Your task to perform on an android device: Open accessibility settings Image 0: 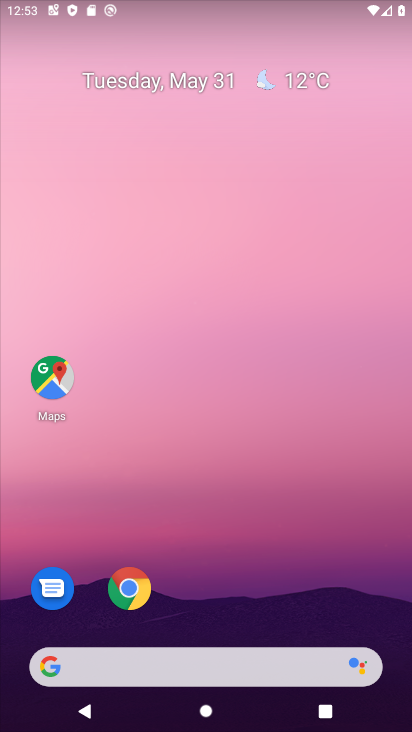
Step 0: drag from (200, 604) to (177, 20)
Your task to perform on an android device: Open accessibility settings Image 1: 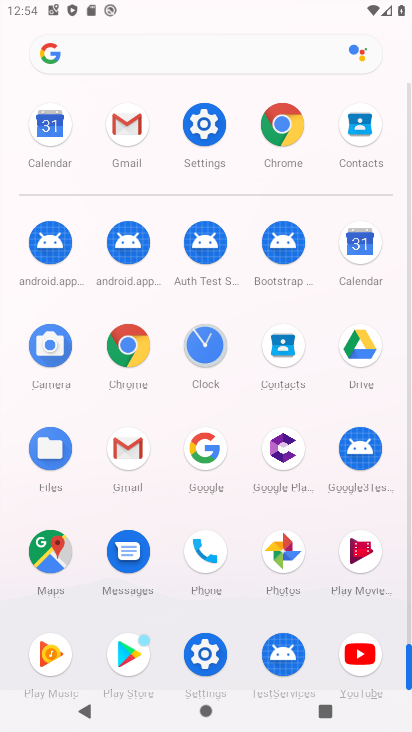
Step 1: click (212, 133)
Your task to perform on an android device: Open accessibility settings Image 2: 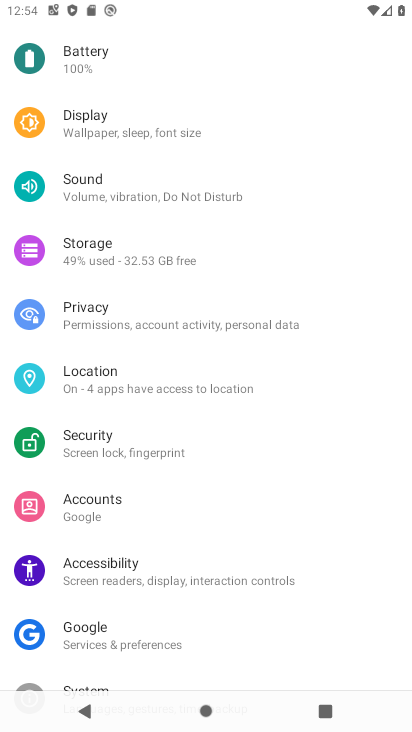
Step 2: drag from (162, 140) to (202, 560)
Your task to perform on an android device: Open accessibility settings Image 3: 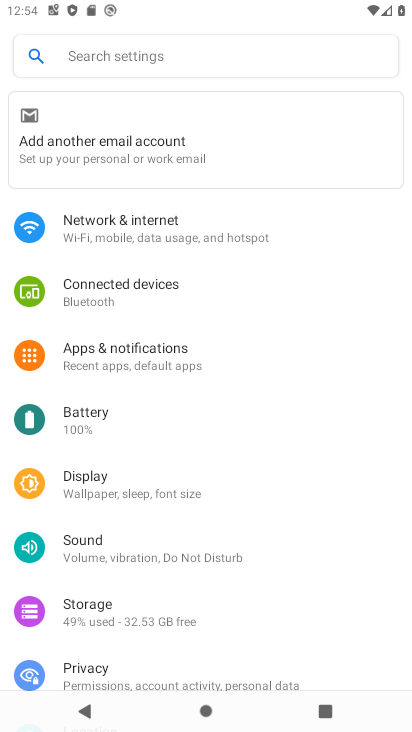
Step 3: drag from (205, 616) to (213, 230)
Your task to perform on an android device: Open accessibility settings Image 4: 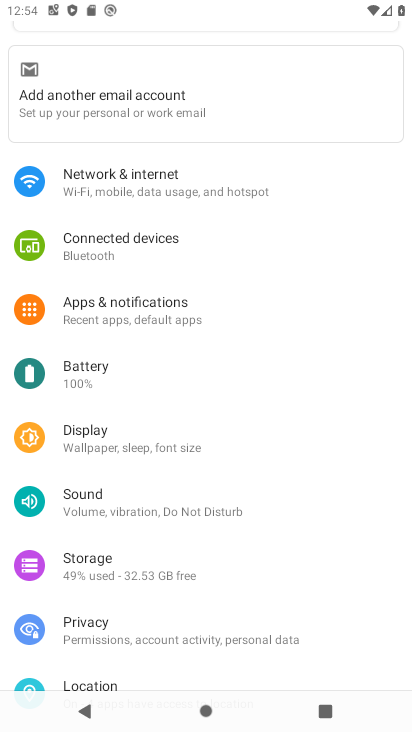
Step 4: drag from (183, 648) to (190, 275)
Your task to perform on an android device: Open accessibility settings Image 5: 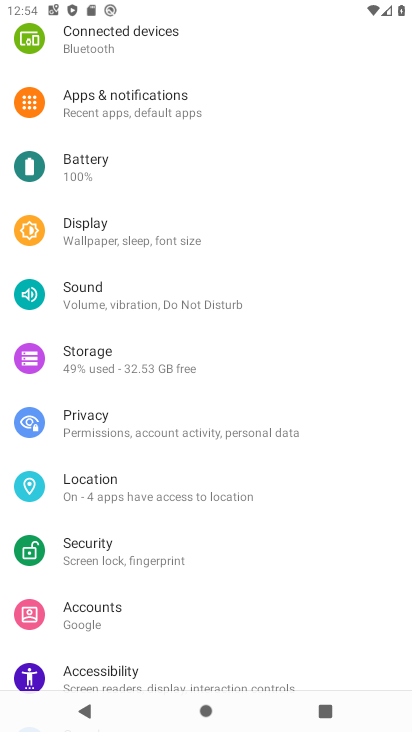
Step 5: drag from (206, 622) to (186, 346)
Your task to perform on an android device: Open accessibility settings Image 6: 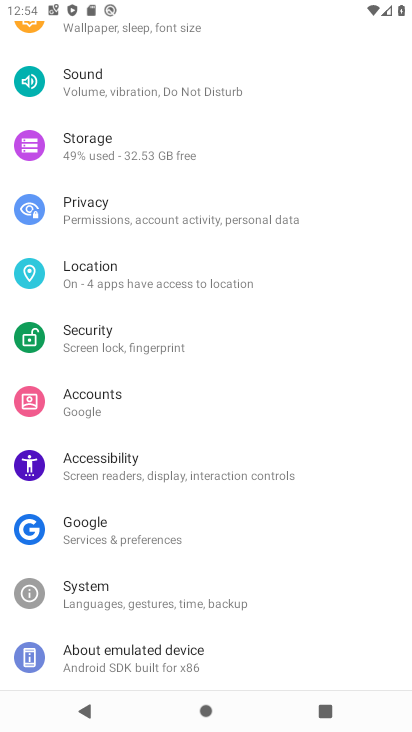
Step 6: click (95, 465)
Your task to perform on an android device: Open accessibility settings Image 7: 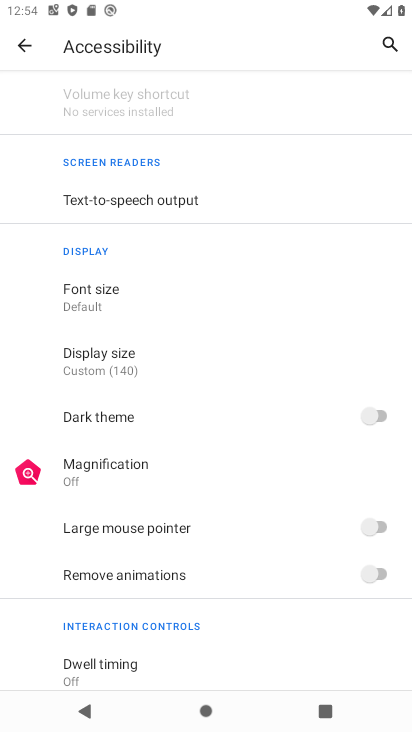
Step 7: task complete